Your task to perform on an android device: choose inbox layout in the gmail app Image 0: 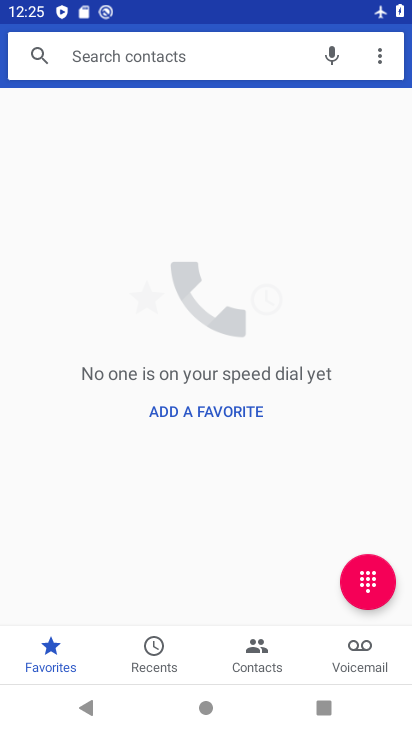
Step 0: press home button
Your task to perform on an android device: choose inbox layout in the gmail app Image 1: 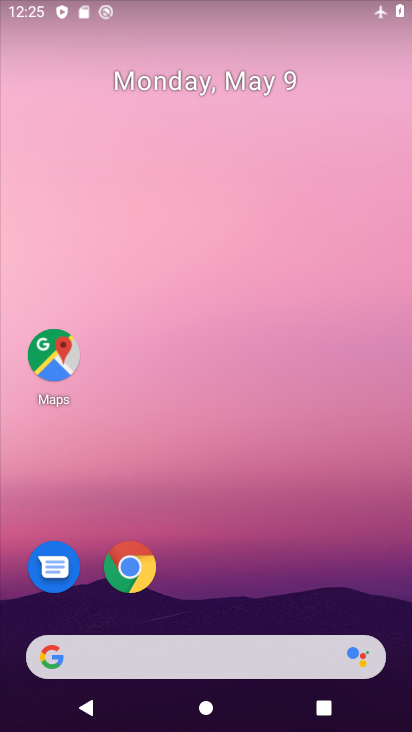
Step 1: drag from (204, 616) to (294, 0)
Your task to perform on an android device: choose inbox layout in the gmail app Image 2: 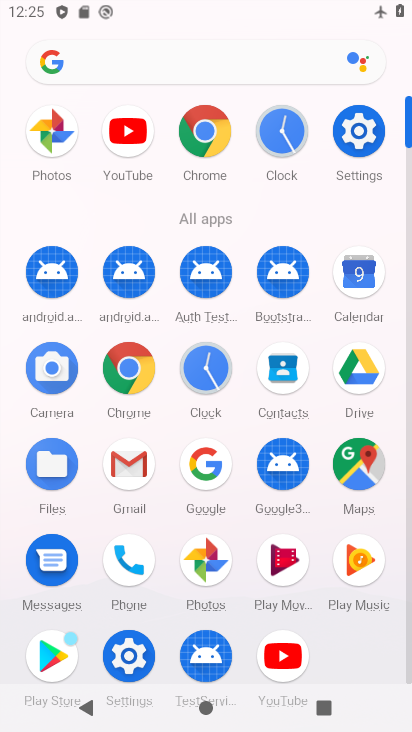
Step 2: click (143, 480)
Your task to perform on an android device: choose inbox layout in the gmail app Image 3: 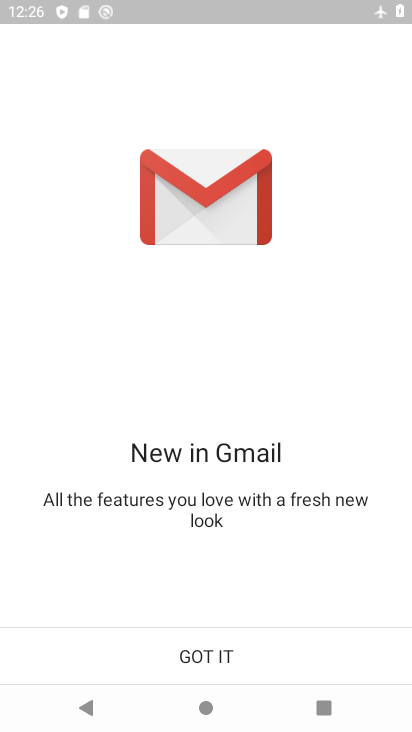
Step 3: click (204, 649)
Your task to perform on an android device: choose inbox layout in the gmail app Image 4: 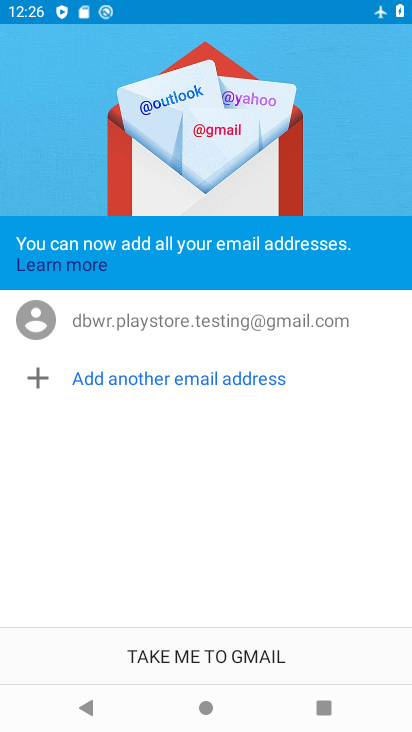
Step 4: click (203, 657)
Your task to perform on an android device: choose inbox layout in the gmail app Image 5: 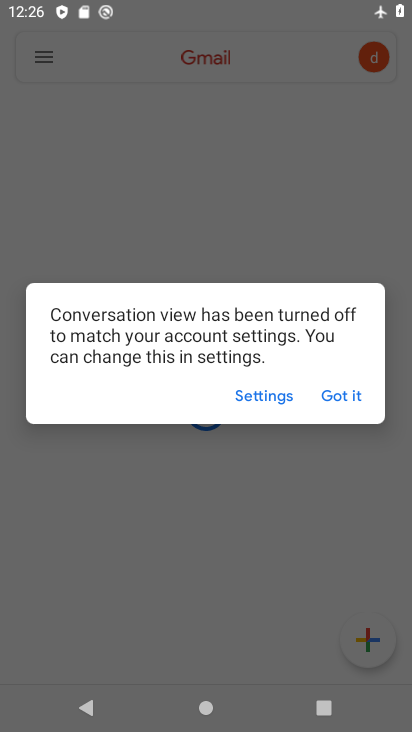
Step 5: click (353, 402)
Your task to perform on an android device: choose inbox layout in the gmail app Image 6: 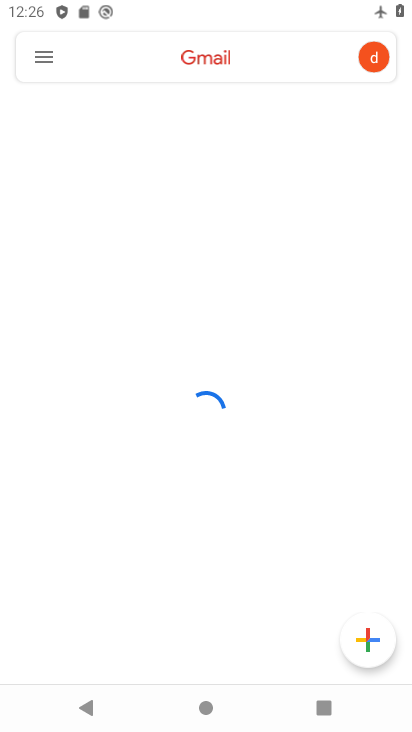
Step 6: click (42, 64)
Your task to perform on an android device: choose inbox layout in the gmail app Image 7: 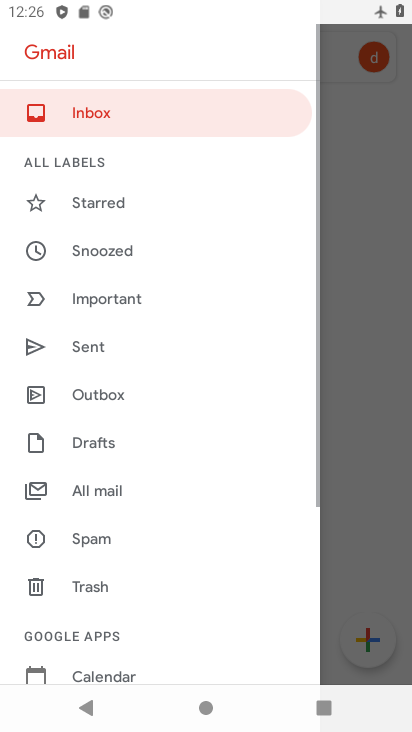
Step 7: drag from (93, 597) to (195, 148)
Your task to perform on an android device: choose inbox layout in the gmail app Image 8: 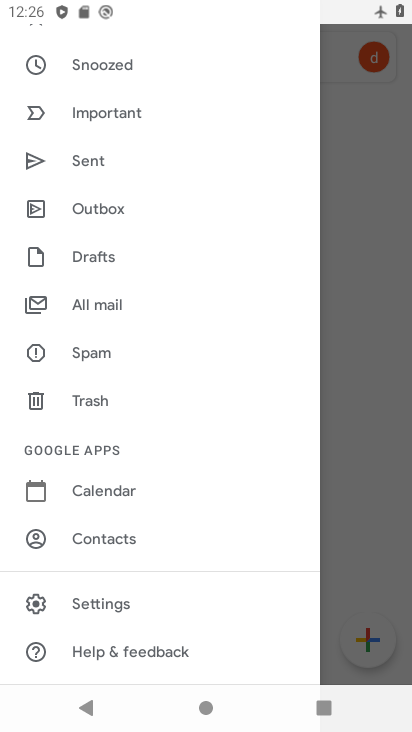
Step 8: click (107, 605)
Your task to perform on an android device: choose inbox layout in the gmail app Image 9: 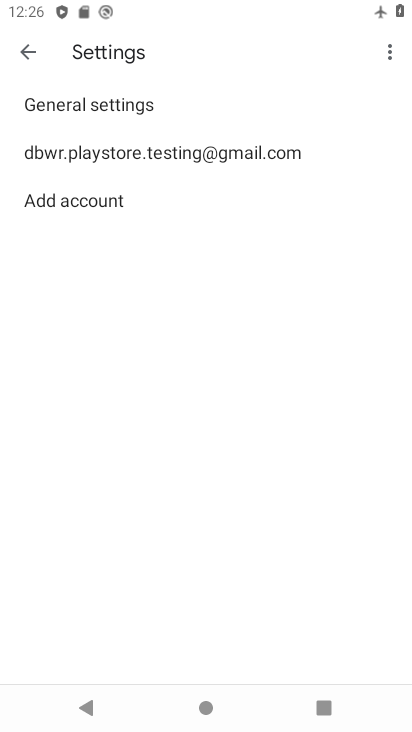
Step 9: click (112, 140)
Your task to perform on an android device: choose inbox layout in the gmail app Image 10: 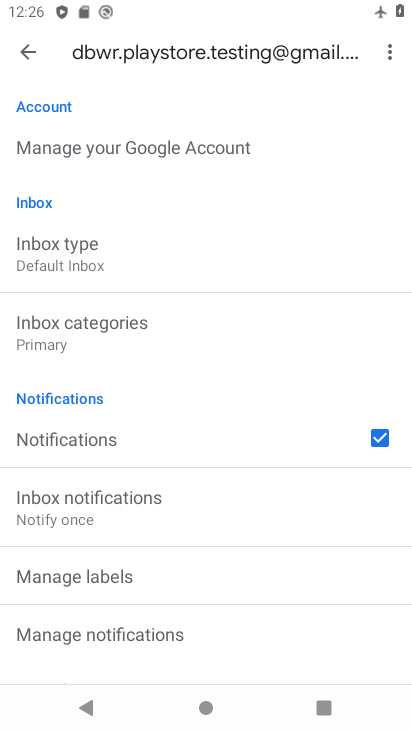
Step 10: click (104, 254)
Your task to perform on an android device: choose inbox layout in the gmail app Image 11: 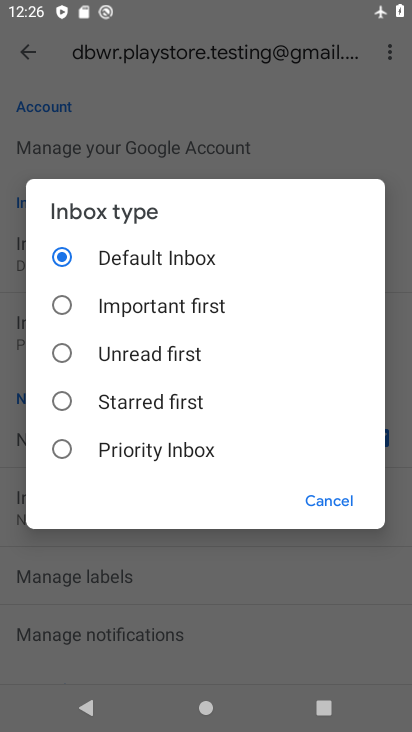
Step 11: click (69, 456)
Your task to perform on an android device: choose inbox layout in the gmail app Image 12: 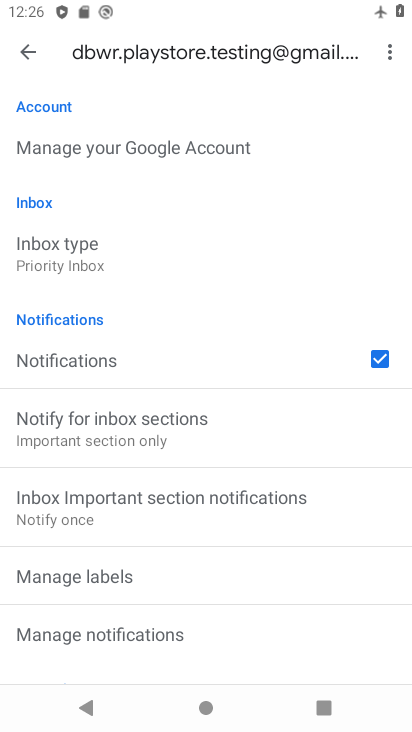
Step 12: task complete